Your task to perform on an android device: stop showing notifications on the lock screen Image 0: 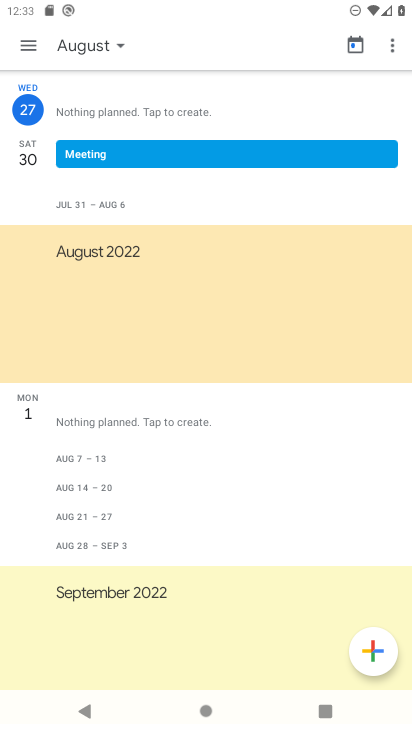
Step 0: press home button
Your task to perform on an android device: stop showing notifications on the lock screen Image 1: 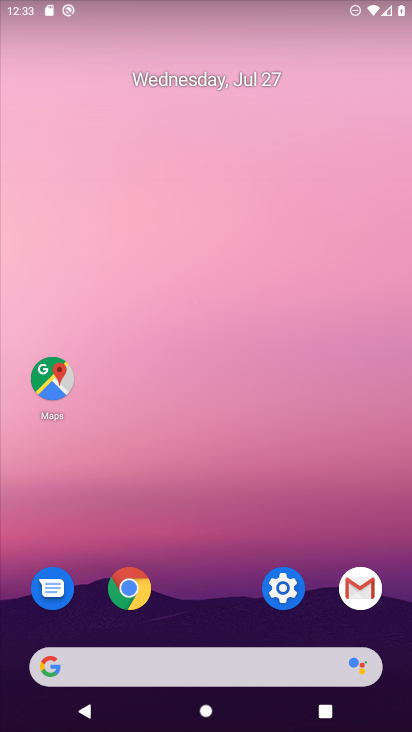
Step 1: click (281, 596)
Your task to perform on an android device: stop showing notifications on the lock screen Image 2: 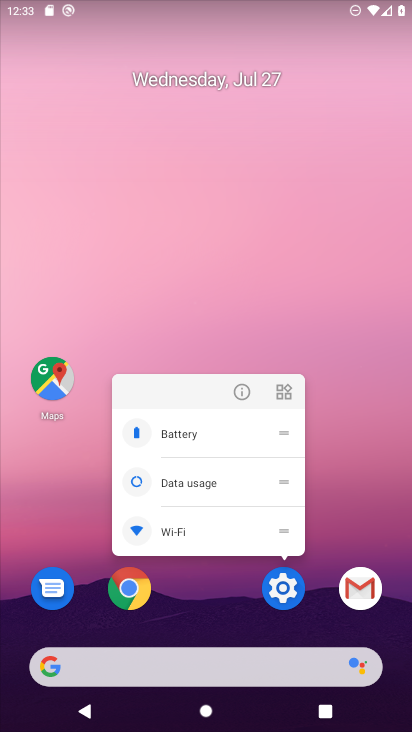
Step 2: click (280, 577)
Your task to perform on an android device: stop showing notifications on the lock screen Image 3: 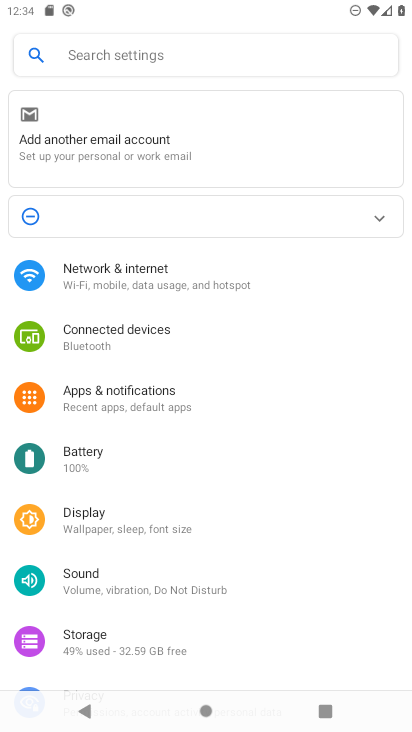
Step 3: click (105, 52)
Your task to perform on an android device: stop showing notifications on the lock screen Image 4: 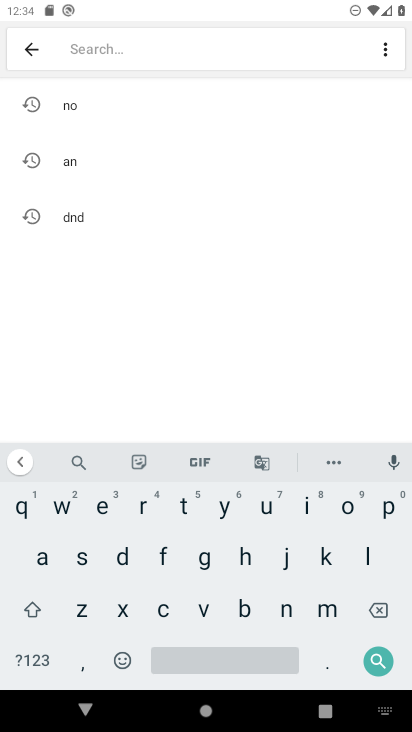
Step 4: click (285, 610)
Your task to perform on an android device: stop showing notifications on the lock screen Image 5: 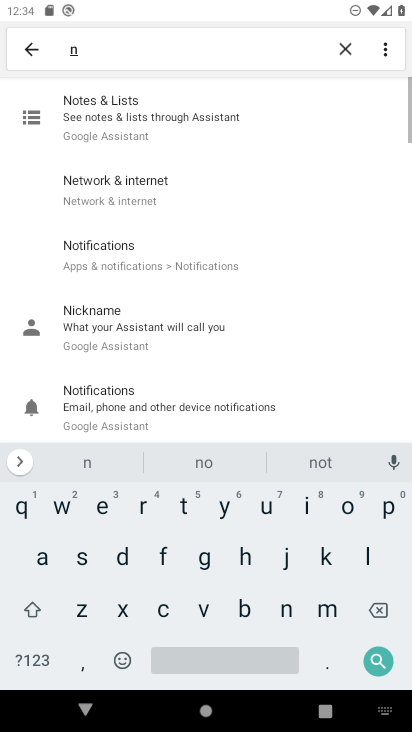
Step 5: click (342, 500)
Your task to perform on an android device: stop showing notifications on the lock screen Image 6: 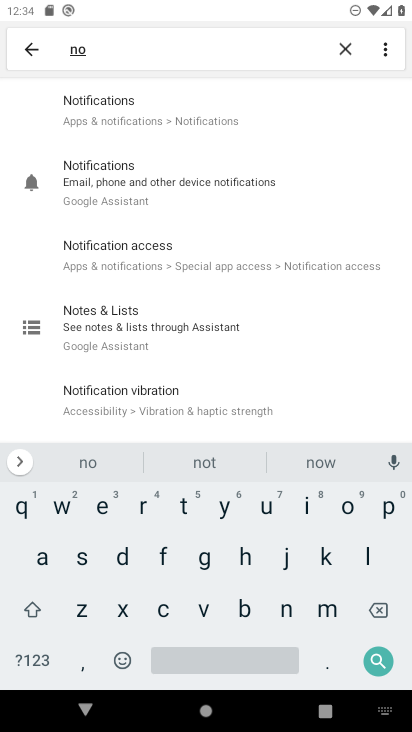
Step 6: click (120, 108)
Your task to perform on an android device: stop showing notifications on the lock screen Image 7: 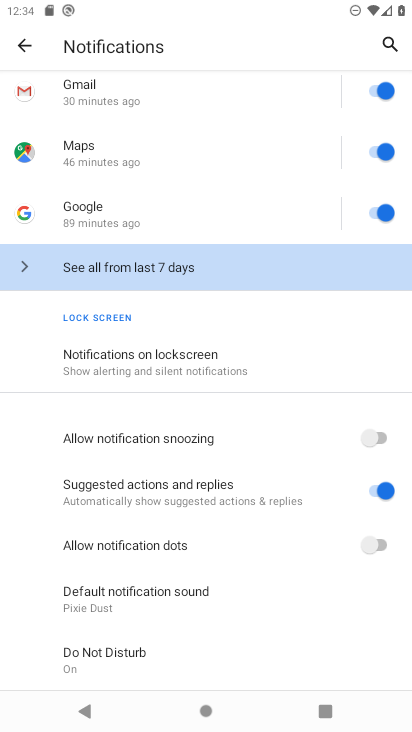
Step 7: click (122, 366)
Your task to perform on an android device: stop showing notifications on the lock screen Image 8: 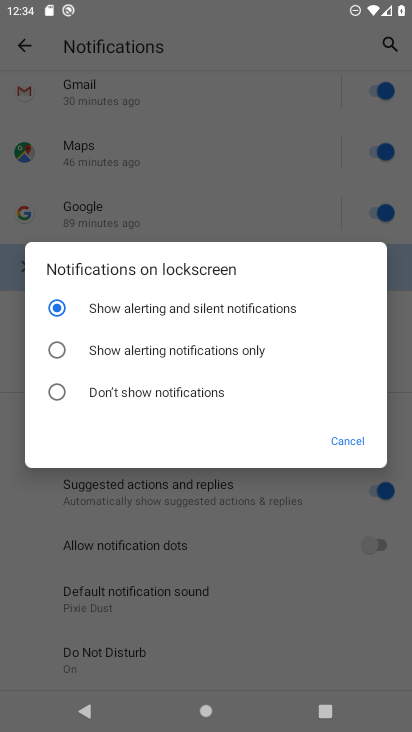
Step 8: click (107, 396)
Your task to perform on an android device: stop showing notifications on the lock screen Image 9: 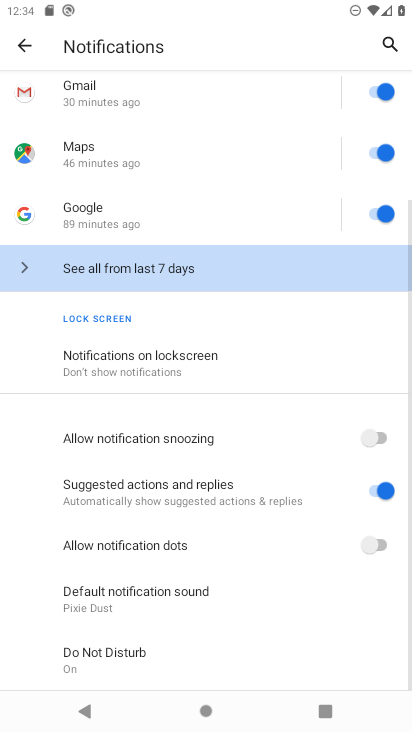
Step 9: click (116, 355)
Your task to perform on an android device: stop showing notifications on the lock screen Image 10: 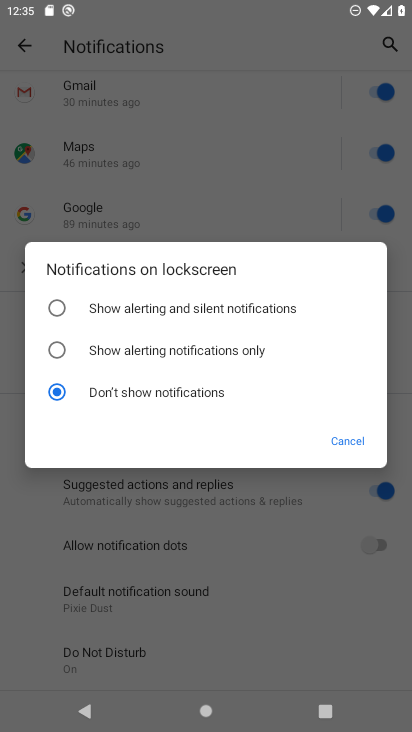
Step 10: task complete